Your task to perform on an android device: Open Google Maps and go to "Timeline" Image 0: 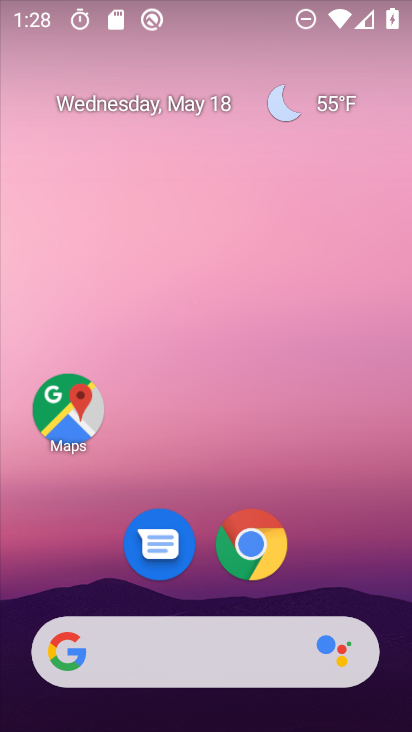
Step 0: click (78, 403)
Your task to perform on an android device: Open Google Maps and go to "Timeline" Image 1: 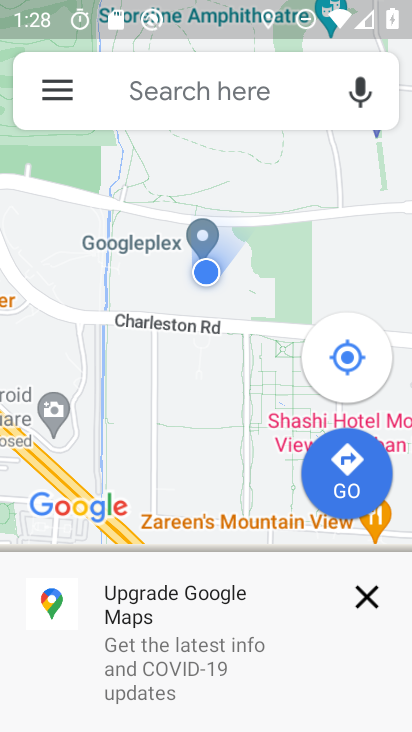
Step 1: click (55, 77)
Your task to perform on an android device: Open Google Maps and go to "Timeline" Image 2: 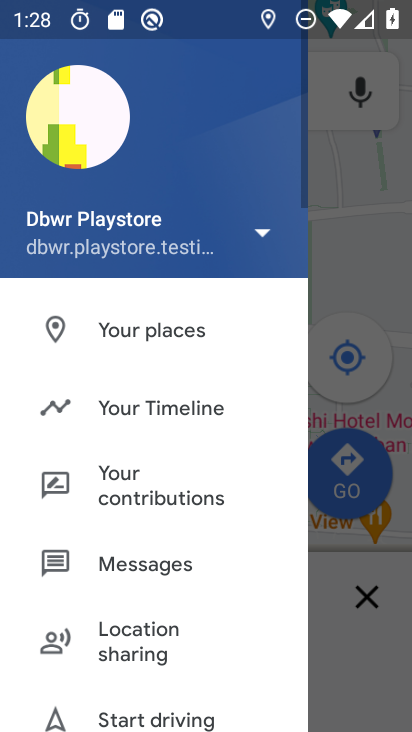
Step 2: click (121, 397)
Your task to perform on an android device: Open Google Maps and go to "Timeline" Image 3: 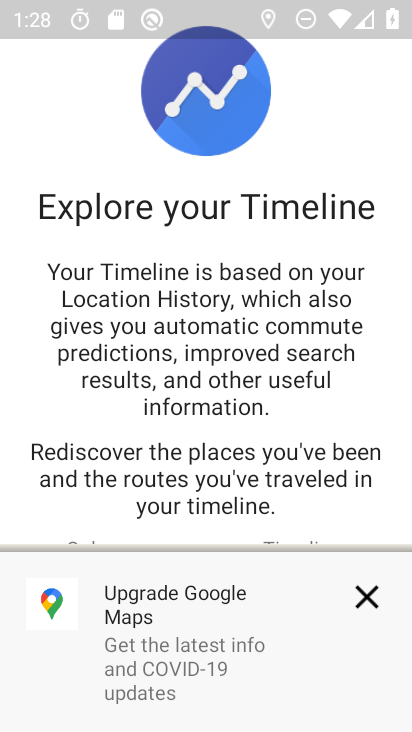
Step 3: drag from (316, 505) to (307, 262)
Your task to perform on an android device: Open Google Maps and go to "Timeline" Image 4: 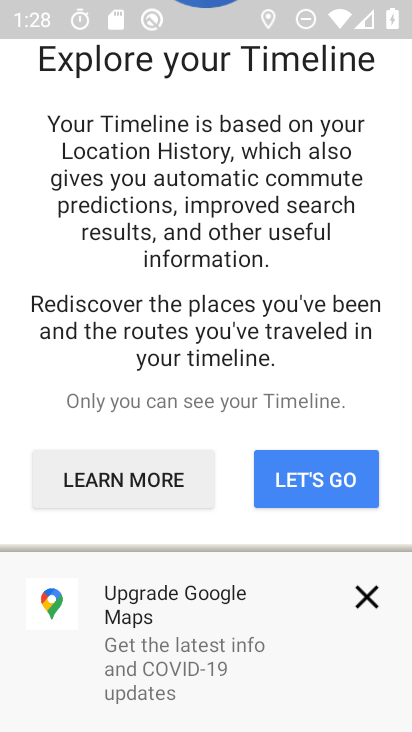
Step 4: click (300, 467)
Your task to perform on an android device: Open Google Maps and go to "Timeline" Image 5: 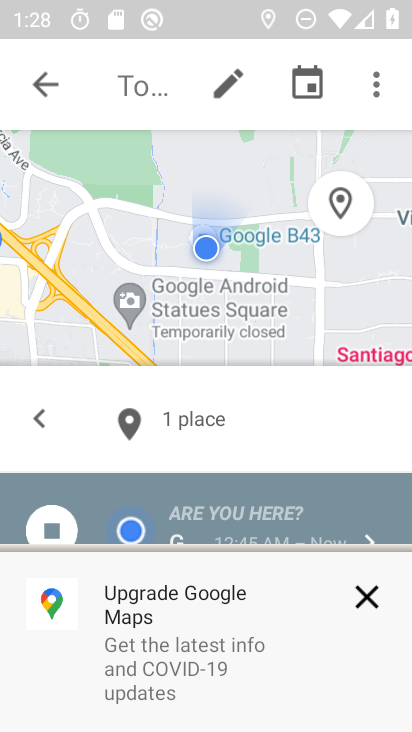
Step 5: click (371, 606)
Your task to perform on an android device: Open Google Maps and go to "Timeline" Image 6: 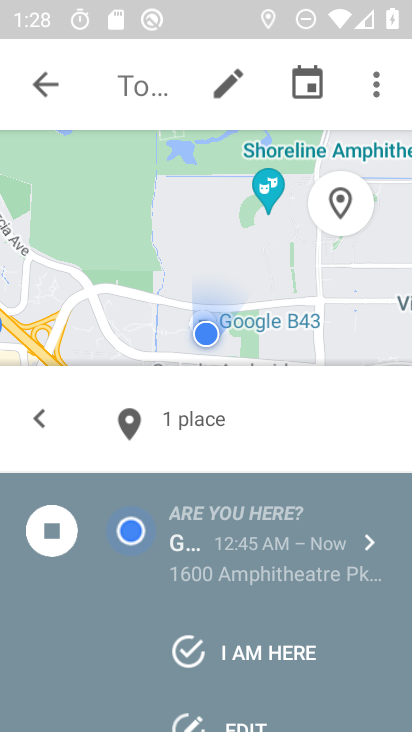
Step 6: task complete